Your task to perform on an android device: open a bookmark in the chrome app Image 0: 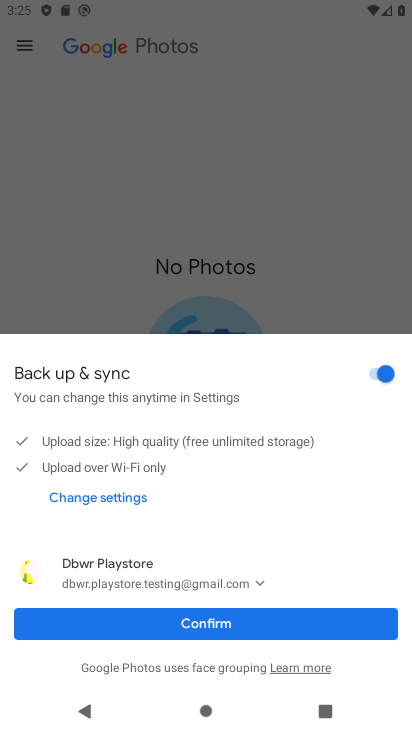
Step 0: press home button
Your task to perform on an android device: open a bookmark in the chrome app Image 1: 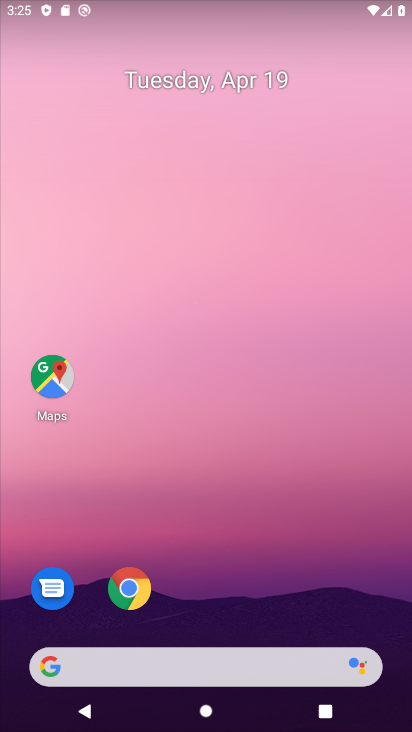
Step 1: click (135, 593)
Your task to perform on an android device: open a bookmark in the chrome app Image 2: 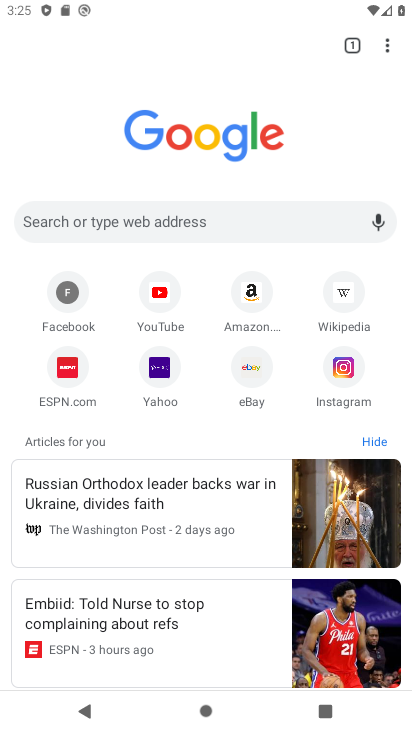
Step 2: click (388, 45)
Your task to perform on an android device: open a bookmark in the chrome app Image 3: 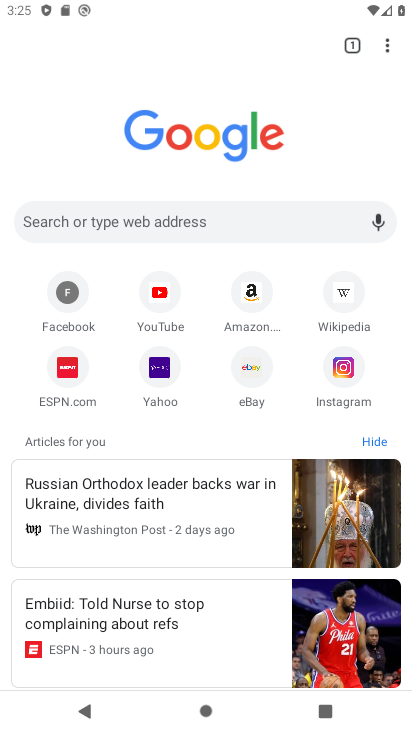
Step 3: click (387, 43)
Your task to perform on an android device: open a bookmark in the chrome app Image 4: 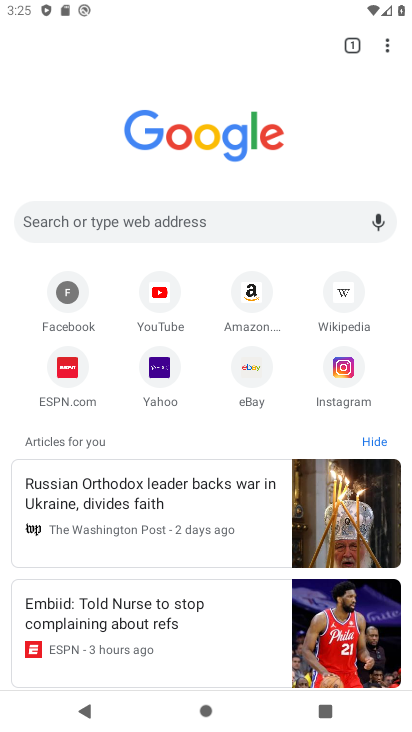
Step 4: click (385, 43)
Your task to perform on an android device: open a bookmark in the chrome app Image 5: 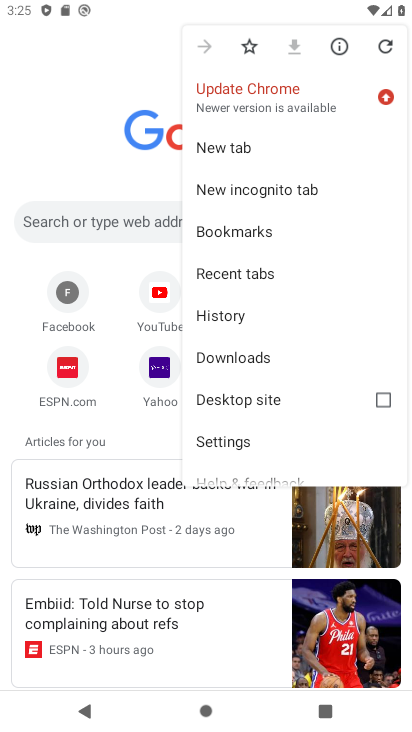
Step 5: click (260, 228)
Your task to perform on an android device: open a bookmark in the chrome app Image 6: 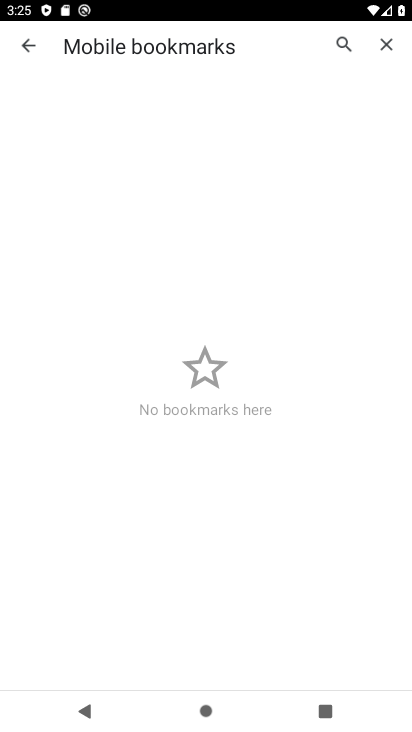
Step 6: task complete